Your task to perform on an android device: toggle notification dots Image 0: 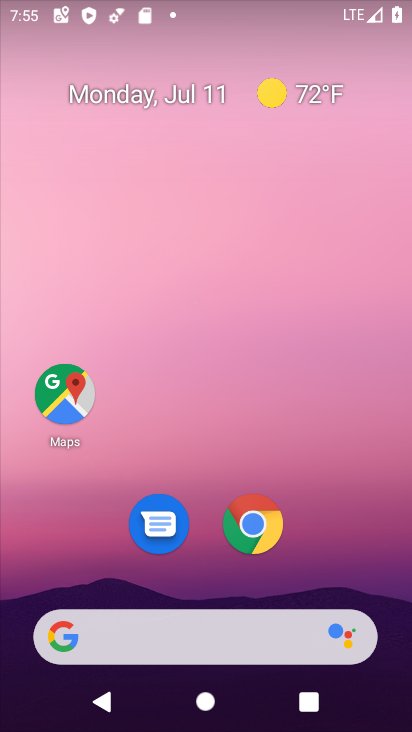
Step 0: drag from (305, 553) to (337, 47)
Your task to perform on an android device: toggle notification dots Image 1: 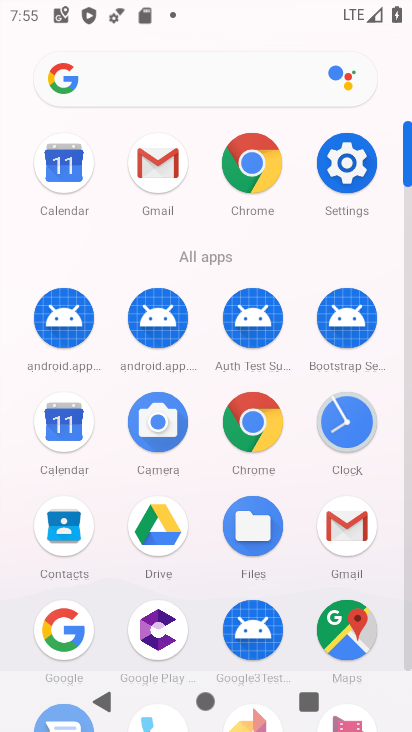
Step 1: click (354, 164)
Your task to perform on an android device: toggle notification dots Image 2: 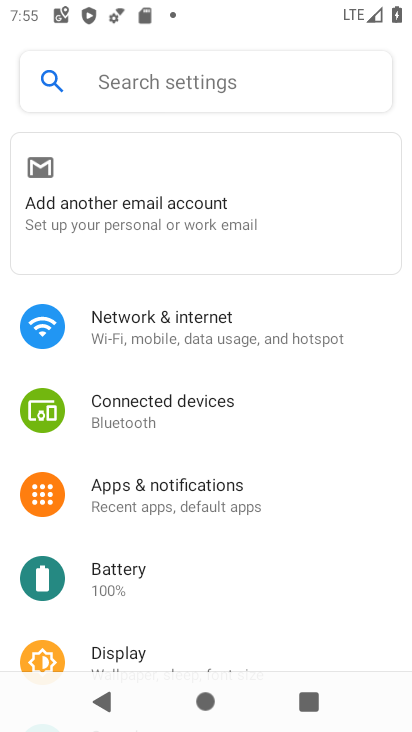
Step 2: click (176, 504)
Your task to perform on an android device: toggle notification dots Image 3: 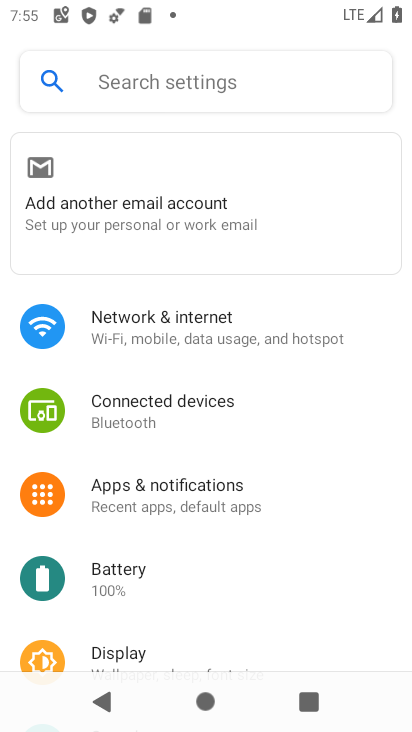
Step 3: click (176, 496)
Your task to perform on an android device: toggle notification dots Image 4: 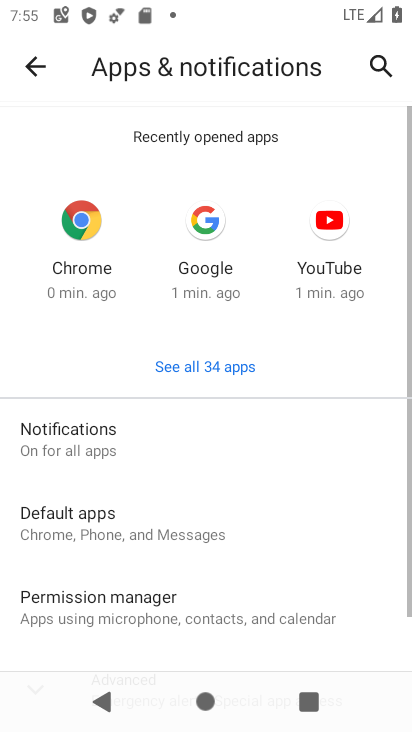
Step 4: click (94, 442)
Your task to perform on an android device: toggle notification dots Image 5: 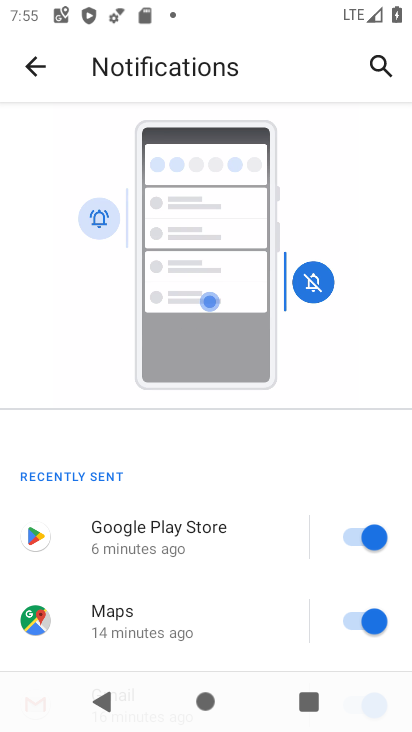
Step 5: drag from (197, 581) to (222, 26)
Your task to perform on an android device: toggle notification dots Image 6: 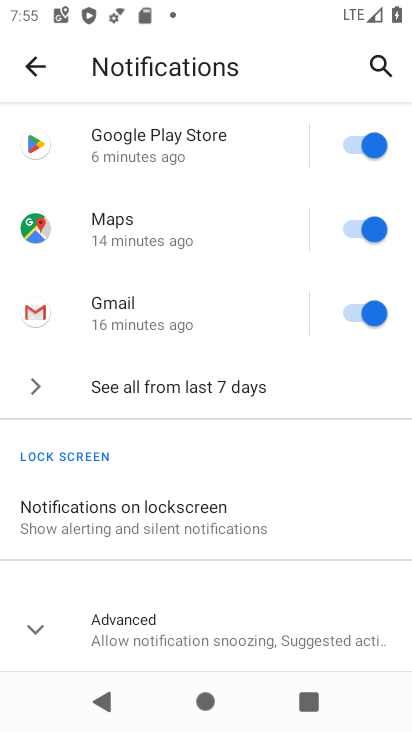
Step 6: click (30, 630)
Your task to perform on an android device: toggle notification dots Image 7: 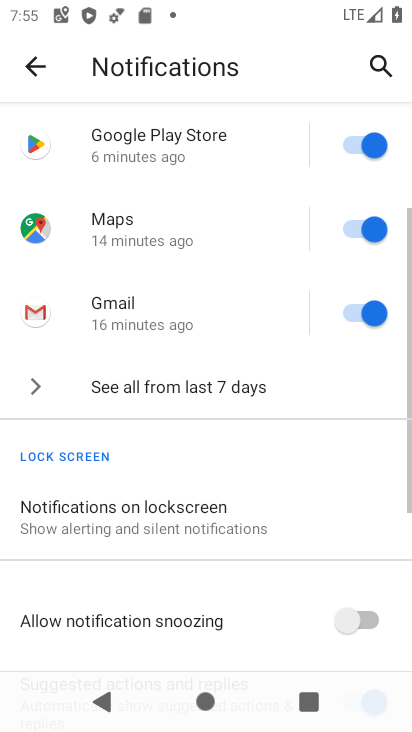
Step 7: drag from (190, 585) to (233, 214)
Your task to perform on an android device: toggle notification dots Image 8: 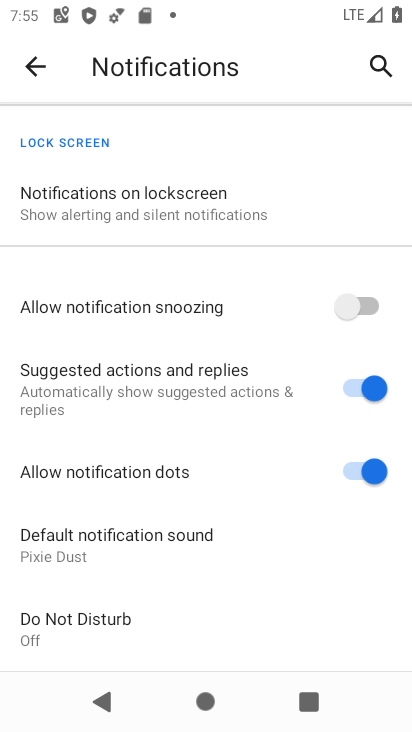
Step 8: click (361, 474)
Your task to perform on an android device: toggle notification dots Image 9: 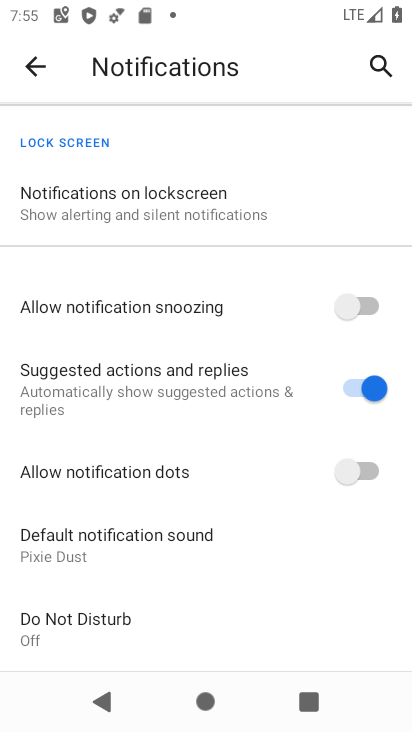
Step 9: task complete